Your task to perform on an android device: Open Google Maps Image 0: 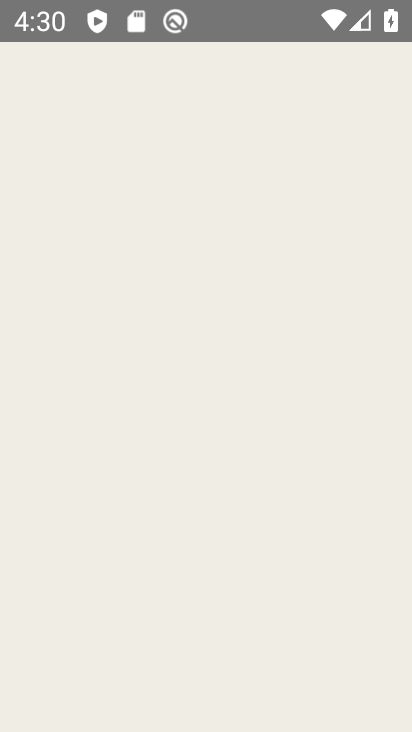
Step 0: drag from (226, 555) to (341, 88)
Your task to perform on an android device: Open Google Maps Image 1: 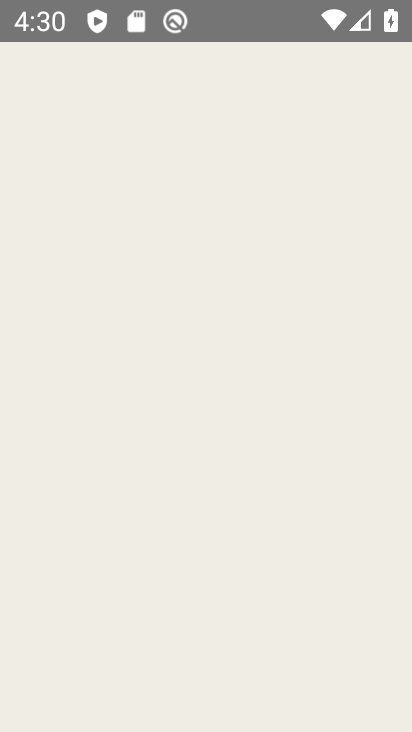
Step 1: press home button
Your task to perform on an android device: Open Google Maps Image 2: 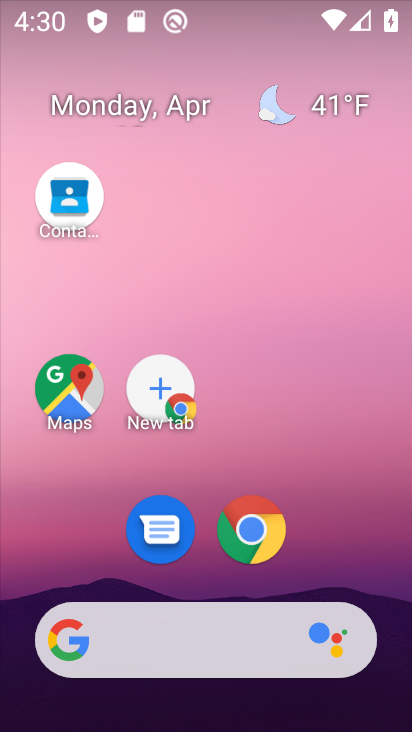
Step 2: drag from (158, 550) to (230, 9)
Your task to perform on an android device: Open Google Maps Image 3: 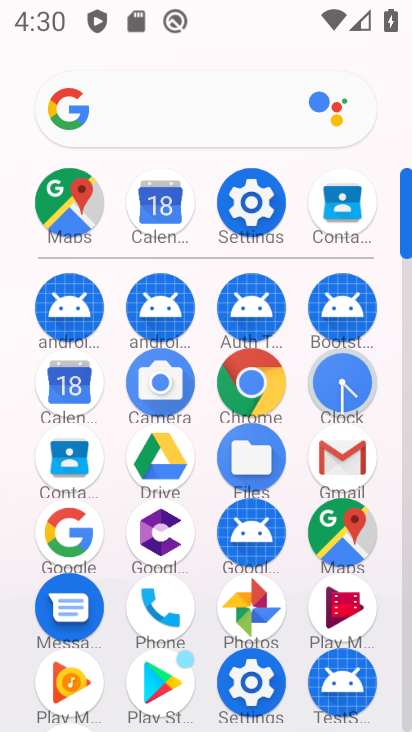
Step 3: click (331, 534)
Your task to perform on an android device: Open Google Maps Image 4: 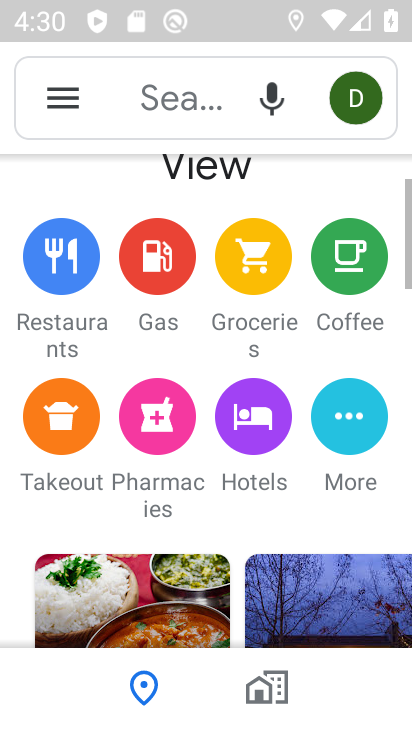
Step 4: task complete